Your task to perform on an android device: change keyboard looks Image 0: 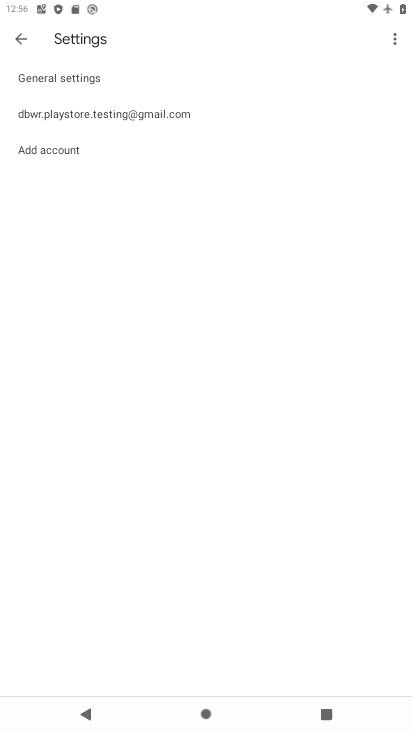
Step 0: press home button
Your task to perform on an android device: change keyboard looks Image 1: 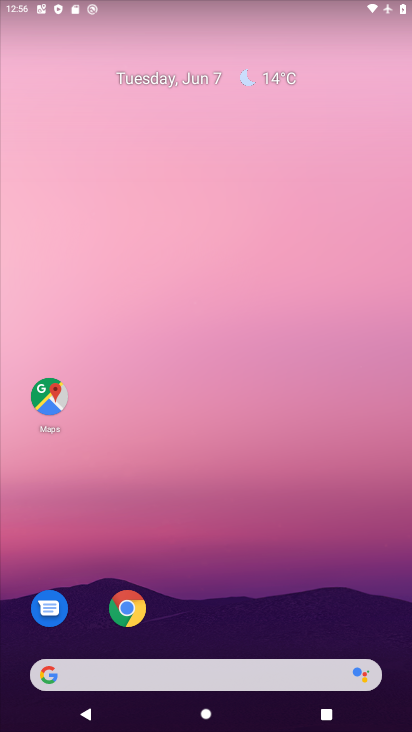
Step 1: drag from (189, 554) to (127, 29)
Your task to perform on an android device: change keyboard looks Image 2: 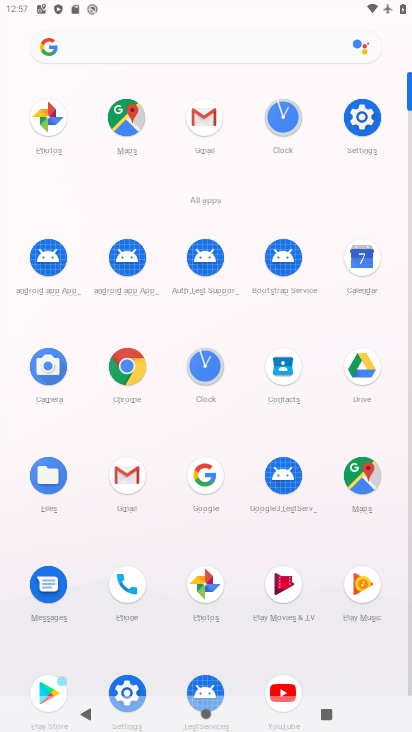
Step 2: click (353, 114)
Your task to perform on an android device: change keyboard looks Image 3: 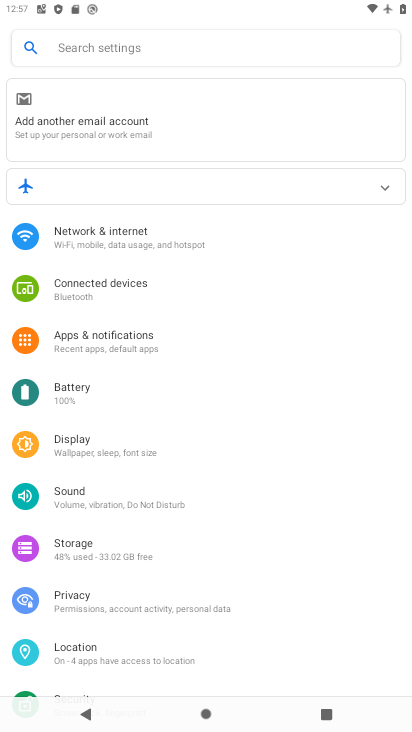
Step 3: drag from (131, 558) to (134, 34)
Your task to perform on an android device: change keyboard looks Image 4: 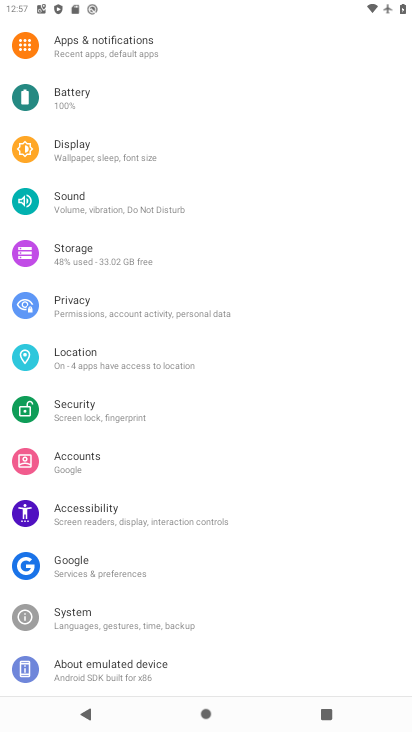
Step 4: click (112, 614)
Your task to perform on an android device: change keyboard looks Image 5: 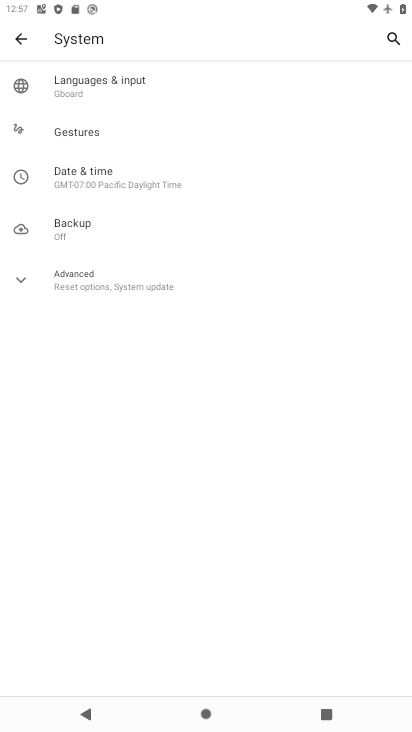
Step 5: click (112, 94)
Your task to perform on an android device: change keyboard looks Image 6: 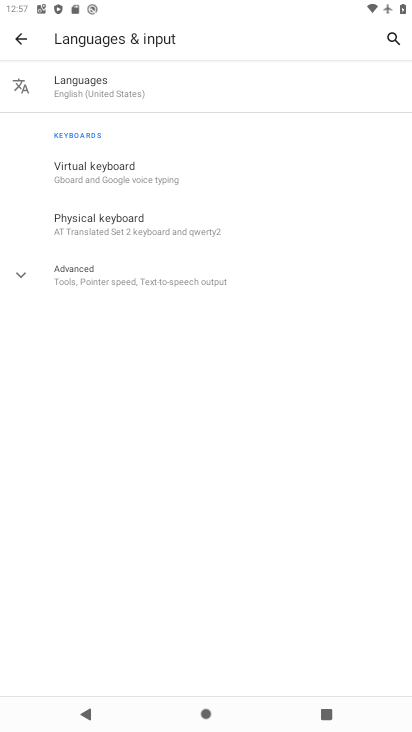
Step 6: click (120, 174)
Your task to perform on an android device: change keyboard looks Image 7: 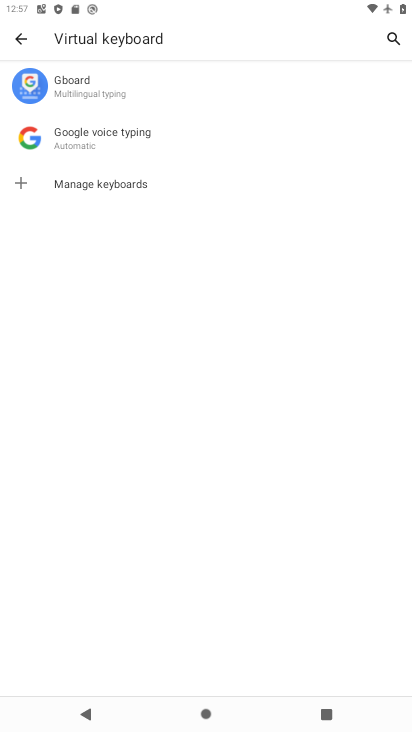
Step 7: click (109, 94)
Your task to perform on an android device: change keyboard looks Image 8: 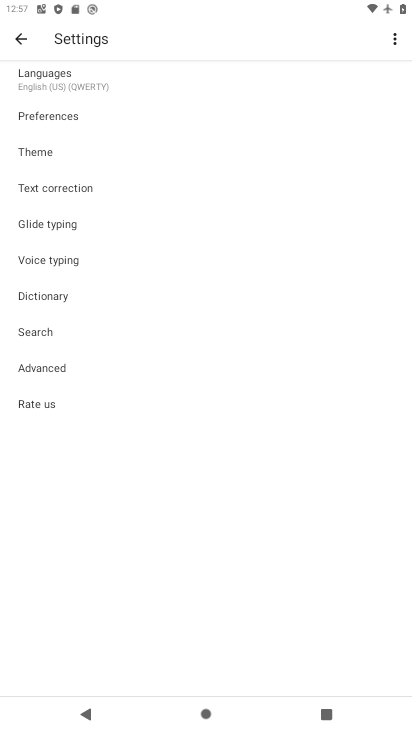
Step 8: click (54, 147)
Your task to perform on an android device: change keyboard looks Image 9: 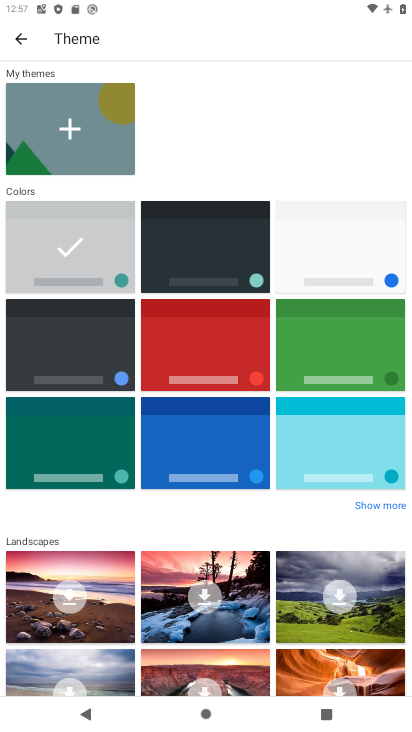
Step 9: click (320, 229)
Your task to perform on an android device: change keyboard looks Image 10: 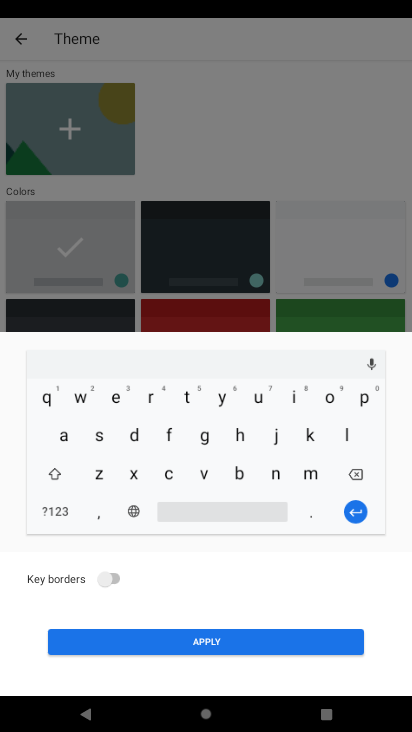
Step 10: click (313, 653)
Your task to perform on an android device: change keyboard looks Image 11: 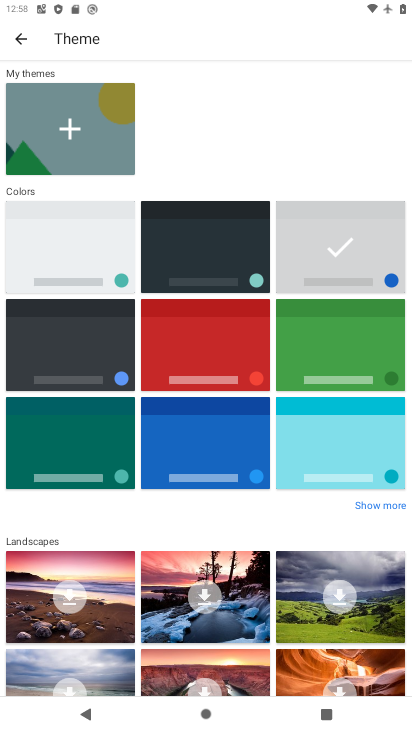
Step 11: task complete